Your task to perform on an android device: Open settings on Google Maps Image 0: 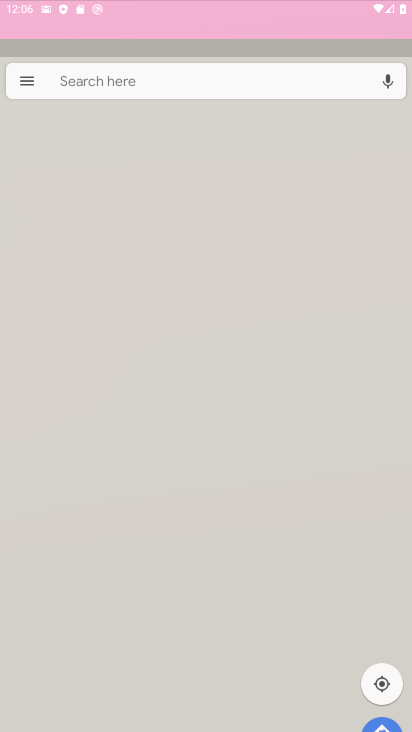
Step 0: drag from (242, 703) to (221, 226)
Your task to perform on an android device: Open settings on Google Maps Image 1: 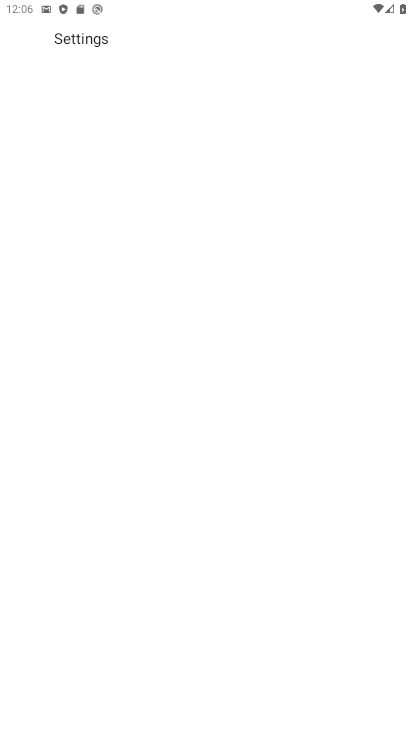
Step 1: drag from (165, 283) to (147, 99)
Your task to perform on an android device: Open settings on Google Maps Image 2: 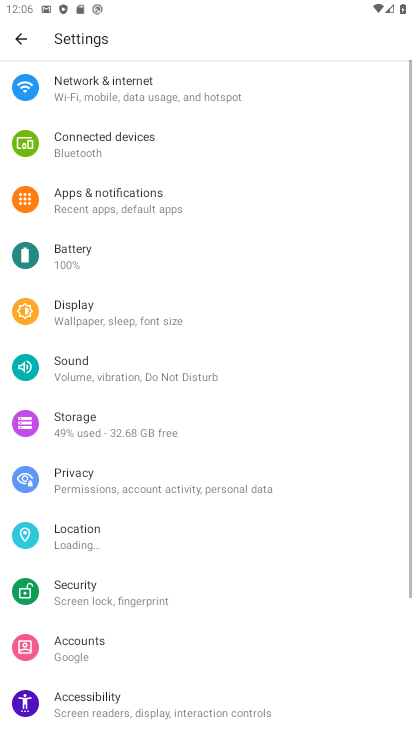
Step 2: press back button
Your task to perform on an android device: Open settings on Google Maps Image 3: 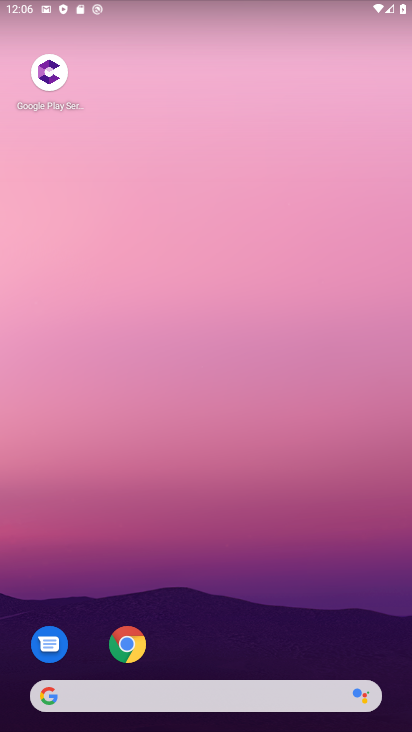
Step 3: press back button
Your task to perform on an android device: Open settings on Google Maps Image 4: 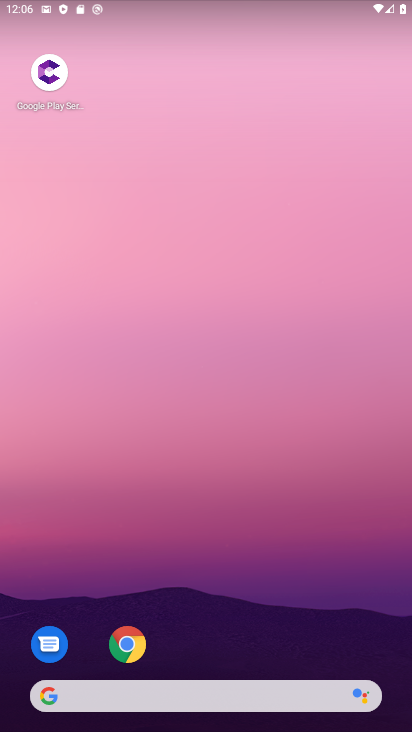
Step 4: drag from (294, 600) to (276, 50)
Your task to perform on an android device: Open settings on Google Maps Image 5: 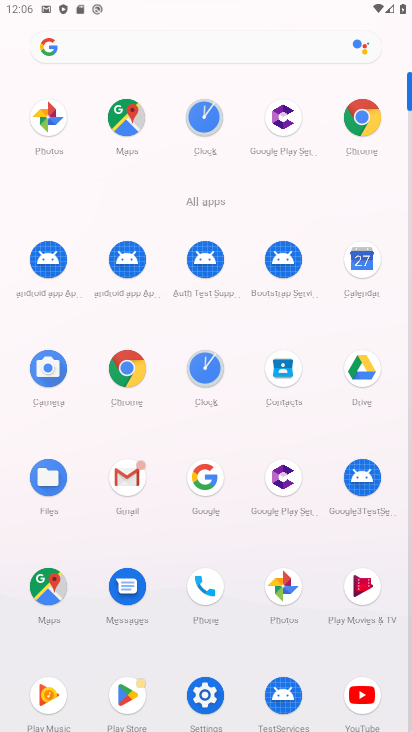
Step 5: drag from (145, 26) to (130, 106)
Your task to perform on an android device: Open settings on Google Maps Image 6: 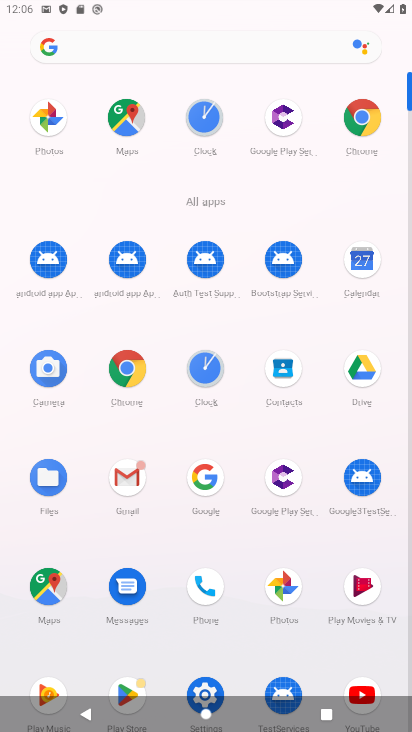
Step 6: click (38, 582)
Your task to perform on an android device: Open settings on Google Maps Image 7: 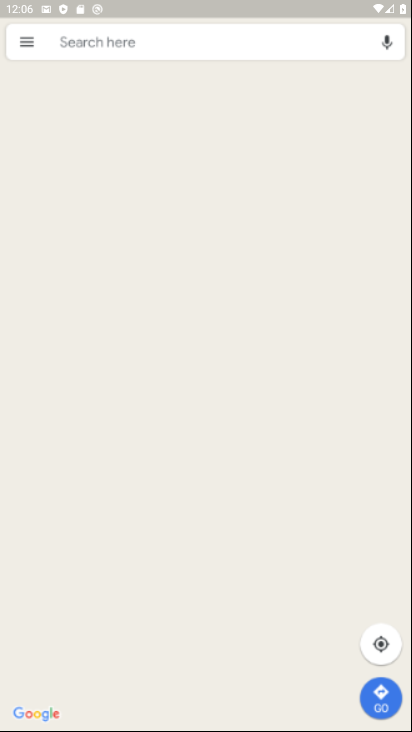
Step 7: click (42, 584)
Your task to perform on an android device: Open settings on Google Maps Image 8: 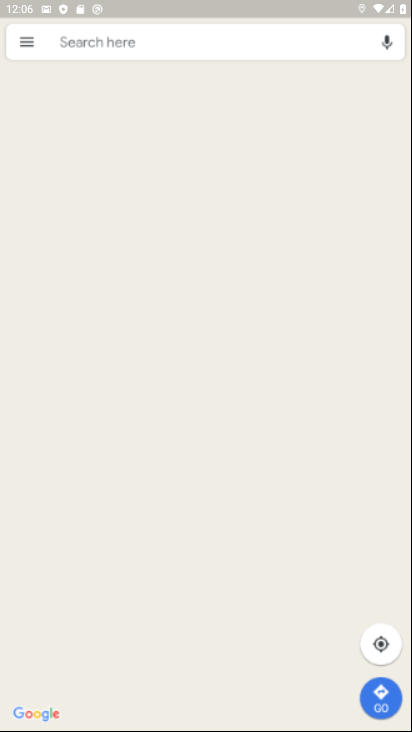
Step 8: click (45, 581)
Your task to perform on an android device: Open settings on Google Maps Image 9: 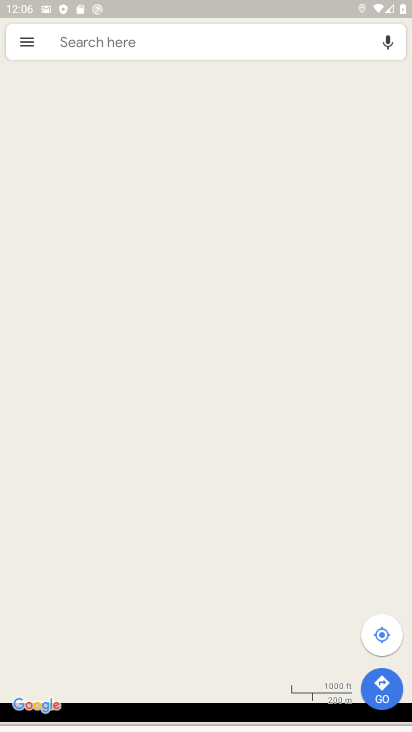
Step 9: click (30, 43)
Your task to perform on an android device: Open settings on Google Maps Image 10: 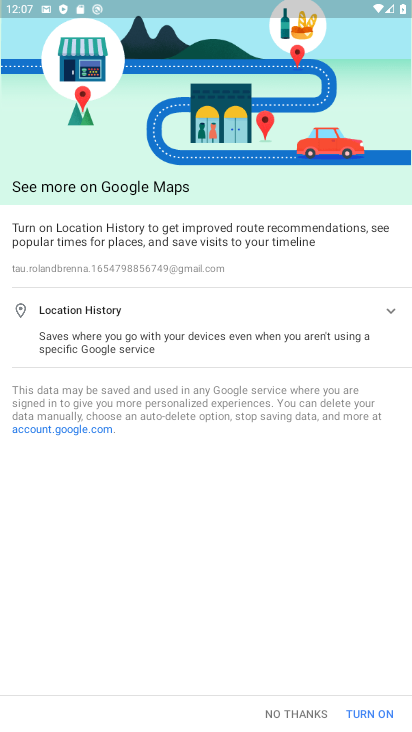
Step 10: click (19, 44)
Your task to perform on an android device: Open settings on Google Maps Image 11: 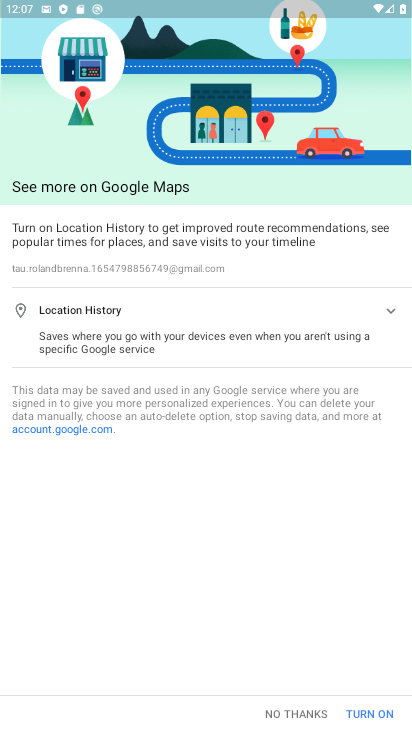
Step 11: click (302, 718)
Your task to perform on an android device: Open settings on Google Maps Image 12: 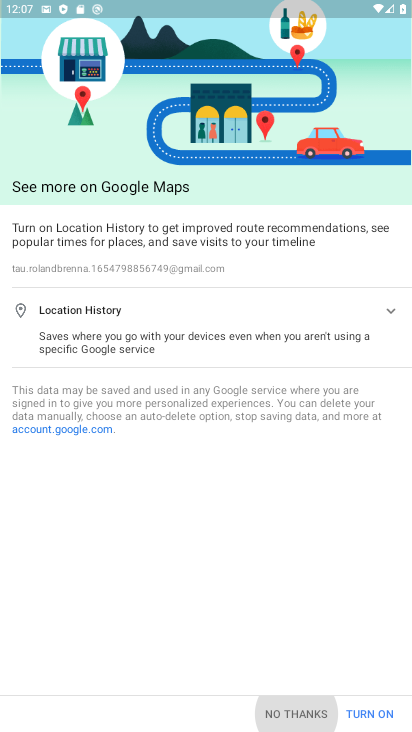
Step 12: click (304, 711)
Your task to perform on an android device: Open settings on Google Maps Image 13: 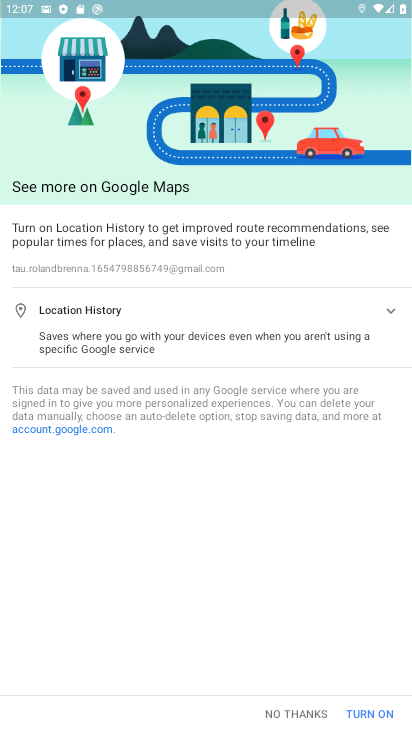
Step 13: click (303, 706)
Your task to perform on an android device: Open settings on Google Maps Image 14: 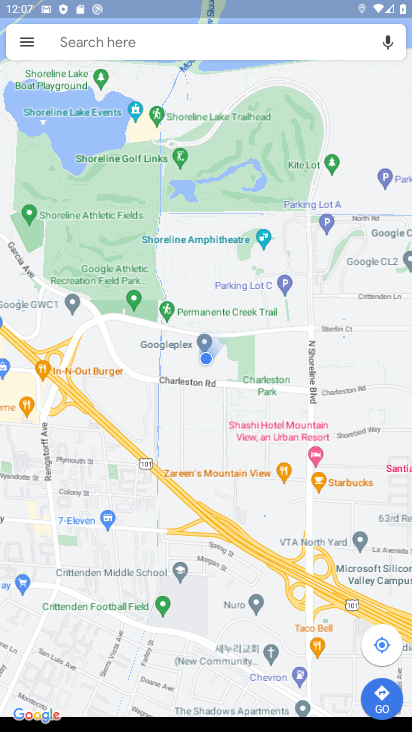
Step 14: click (30, 50)
Your task to perform on an android device: Open settings on Google Maps Image 15: 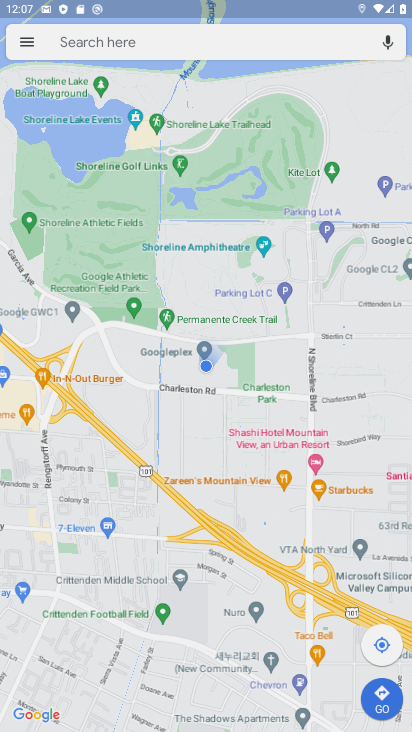
Step 15: click (28, 49)
Your task to perform on an android device: Open settings on Google Maps Image 16: 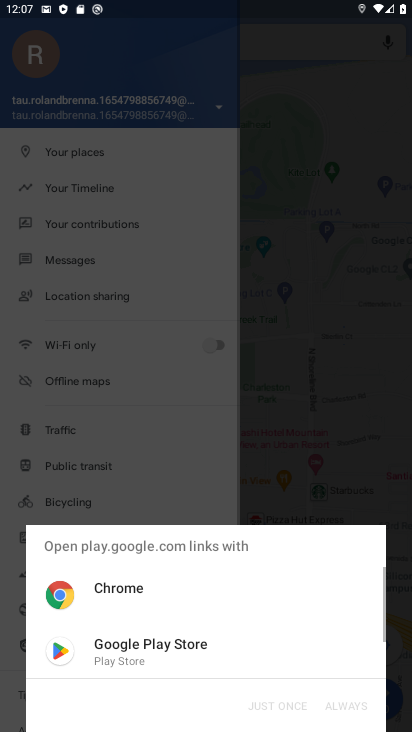
Step 16: click (163, 311)
Your task to perform on an android device: Open settings on Google Maps Image 17: 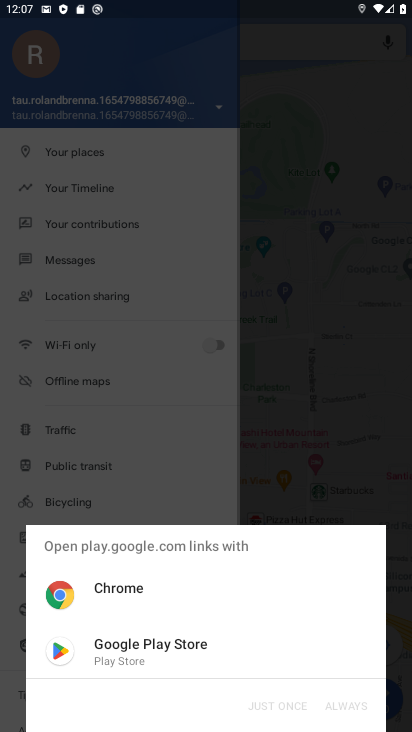
Step 17: click (163, 310)
Your task to perform on an android device: Open settings on Google Maps Image 18: 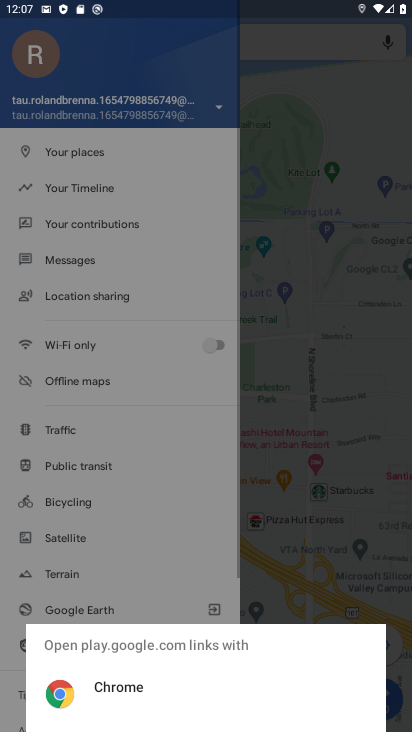
Step 18: click (330, 503)
Your task to perform on an android device: Open settings on Google Maps Image 19: 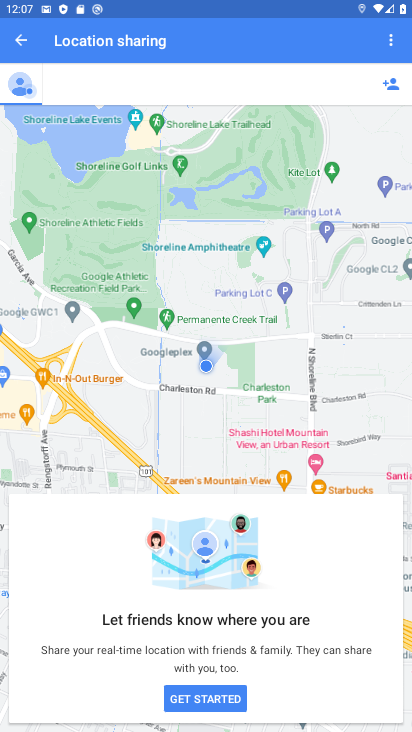
Step 19: click (26, 39)
Your task to perform on an android device: Open settings on Google Maps Image 20: 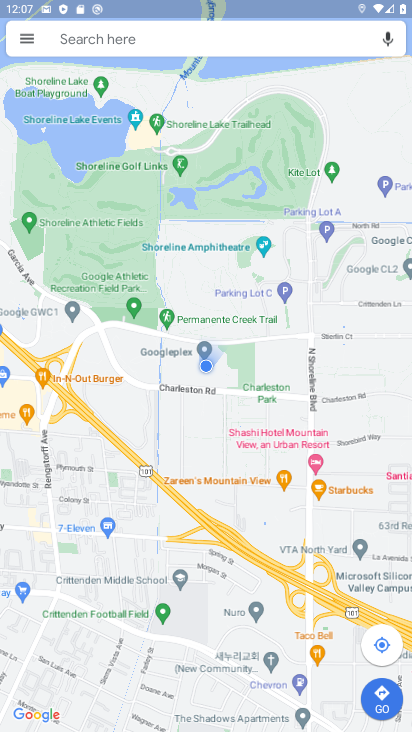
Step 20: click (200, 710)
Your task to perform on an android device: Open settings on Google Maps Image 21: 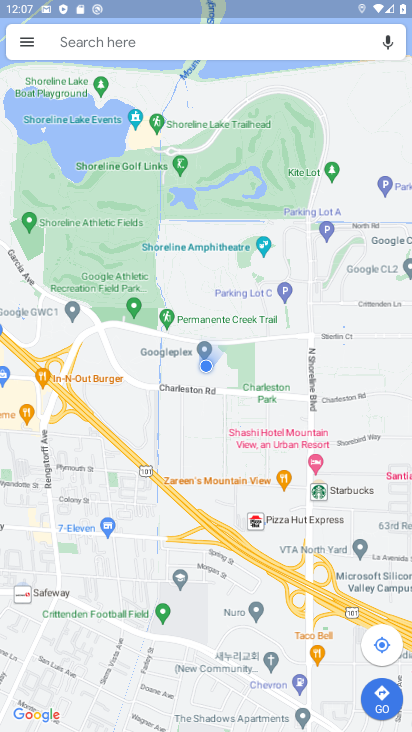
Step 21: click (202, 702)
Your task to perform on an android device: Open settings on Google Maps Image 22: 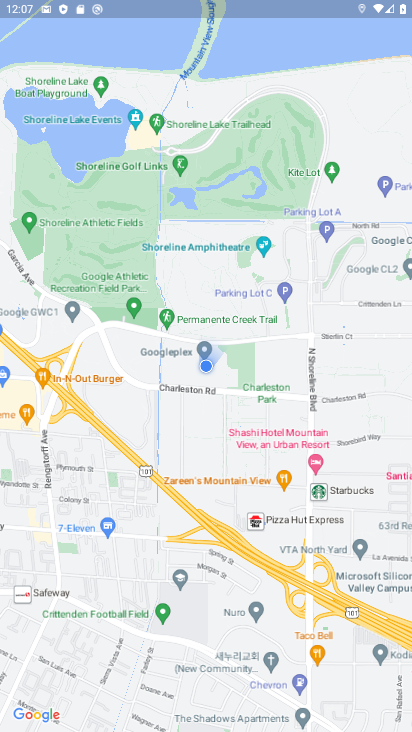
Step 22: click (35, 46)
Your task to perform on an android device: Open settings on Google Maps Image 23: 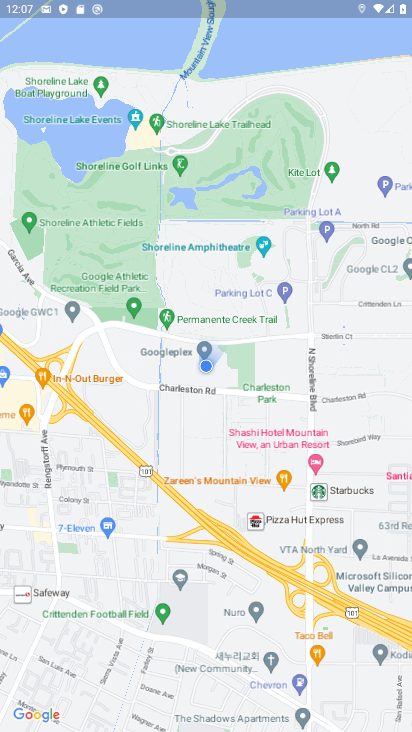
Step 23: task complete